Your task to perform on an android device: What is the price of a 12' ladder at Lowes? Image 0: 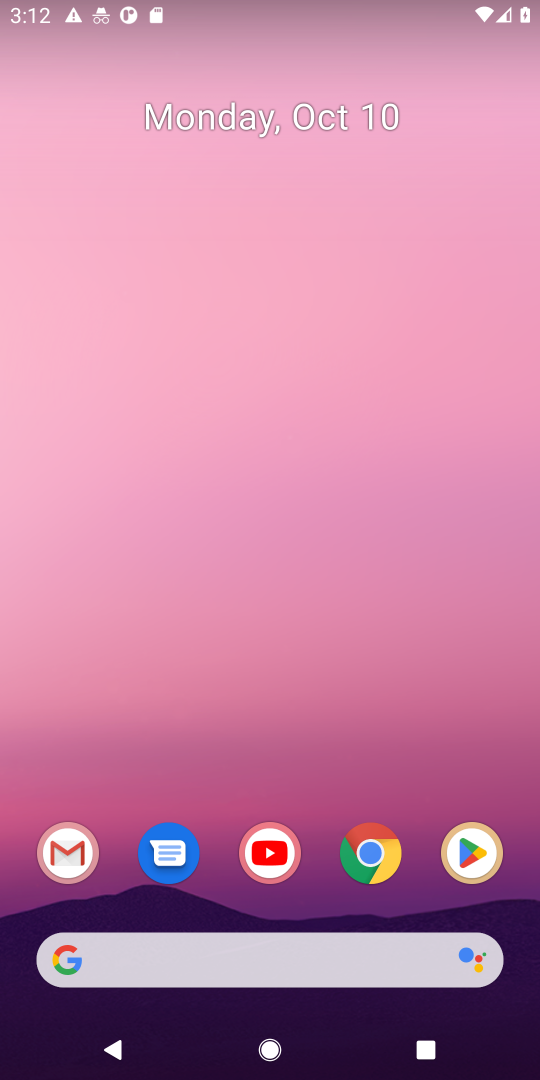
Step 0: click (237, 79)
Your task to perform on an android device: What is the price of a 12' ladder at Lowes? Image 1: 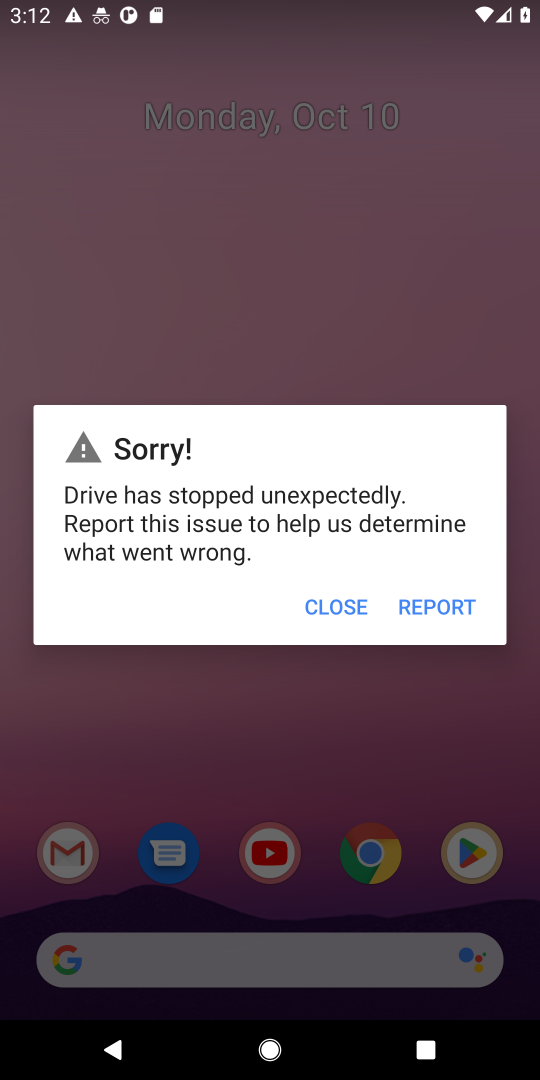
Step 1: click (313, 595)
Your task to perform on an android device: What is the price of a 12' ladder at Lowes? Image 2: 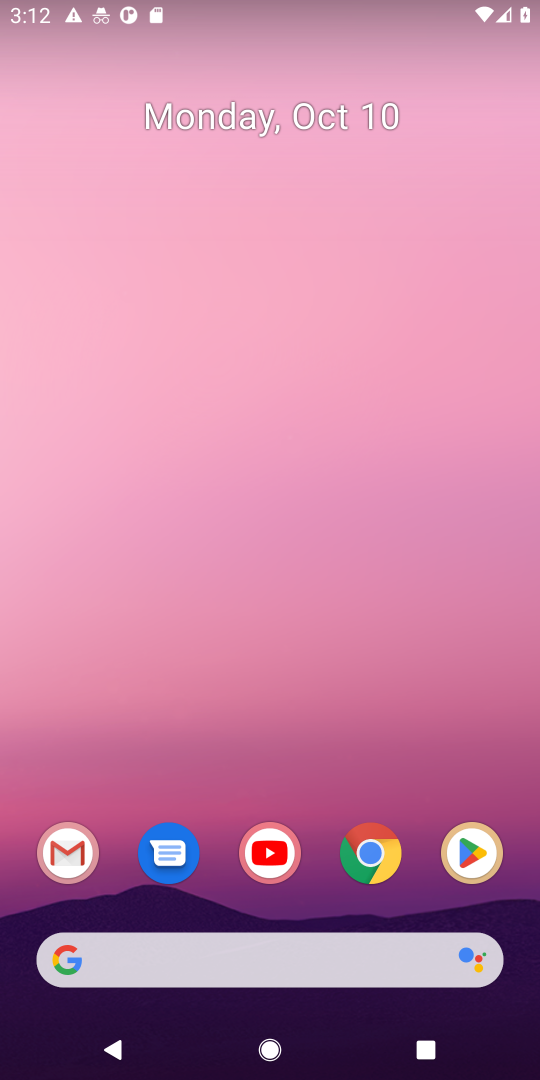
Step 2: click (330, 602)
Your task to perform on an android device: What is the price of a 12' ladder at Lowes? Image 3: 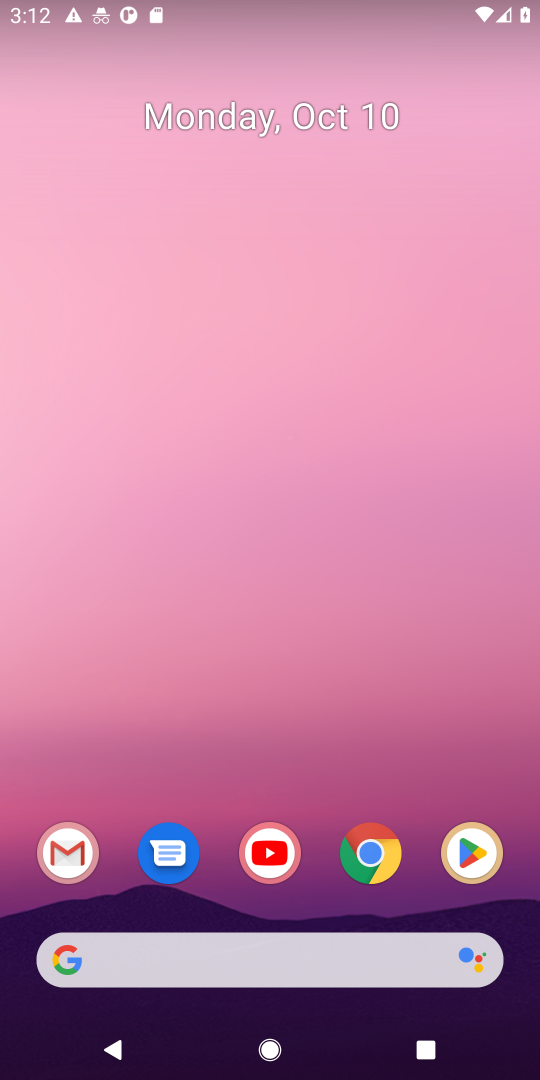
Step 3: click (330, 954)
Your task to perform on an android device: What is the price of a 12' ladder at Lowes? Image 4: 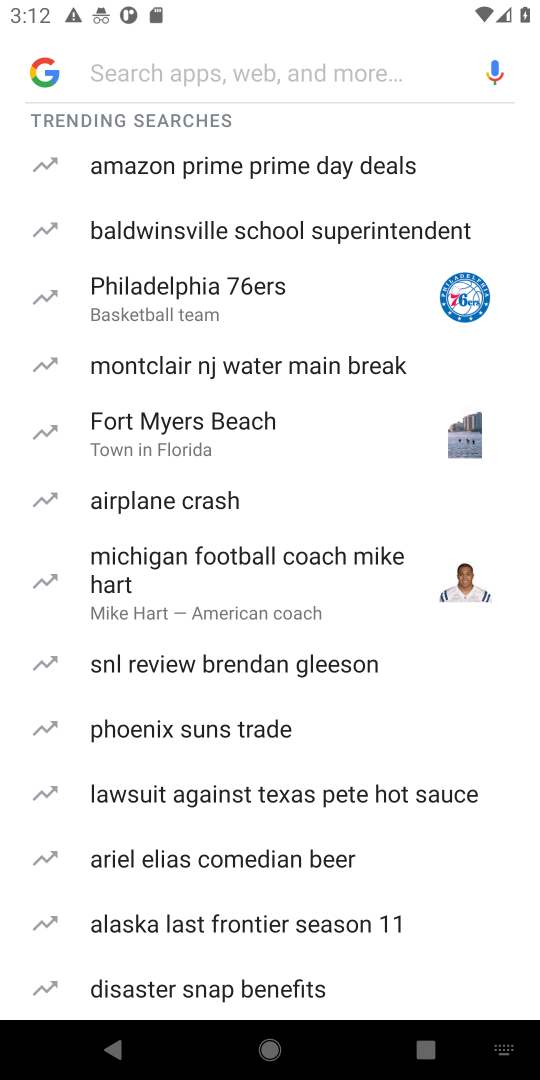
Step 4: type "What is the price of a 12' ladder at Lowes?"
Your task to perform on an android device: What is the price of a 12' ladder at Lowes? Image 5: 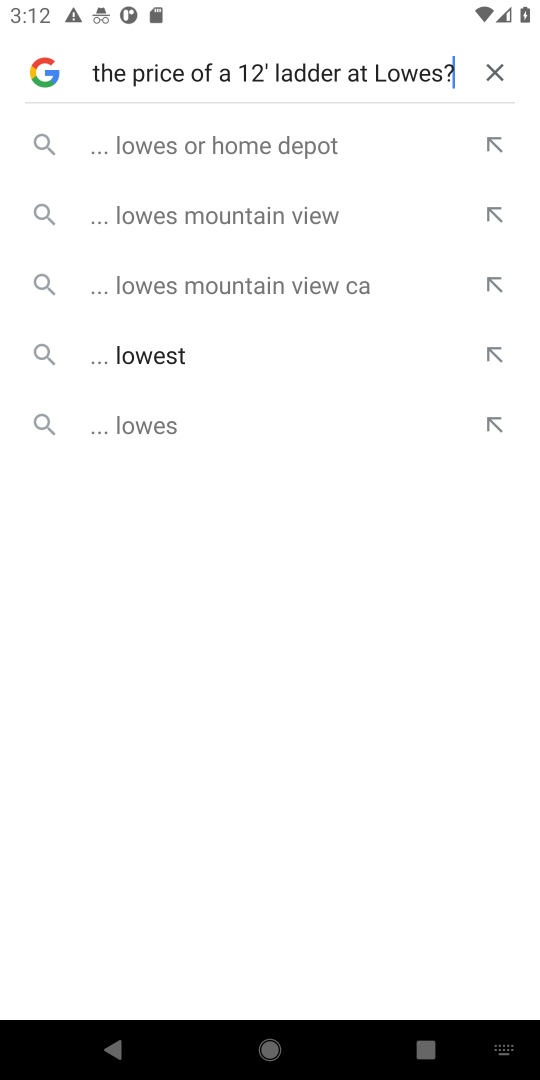
Step 5: press enter
Your task to perform on an android device: What is the price of a 12' ladder at Lowes? Image 6: 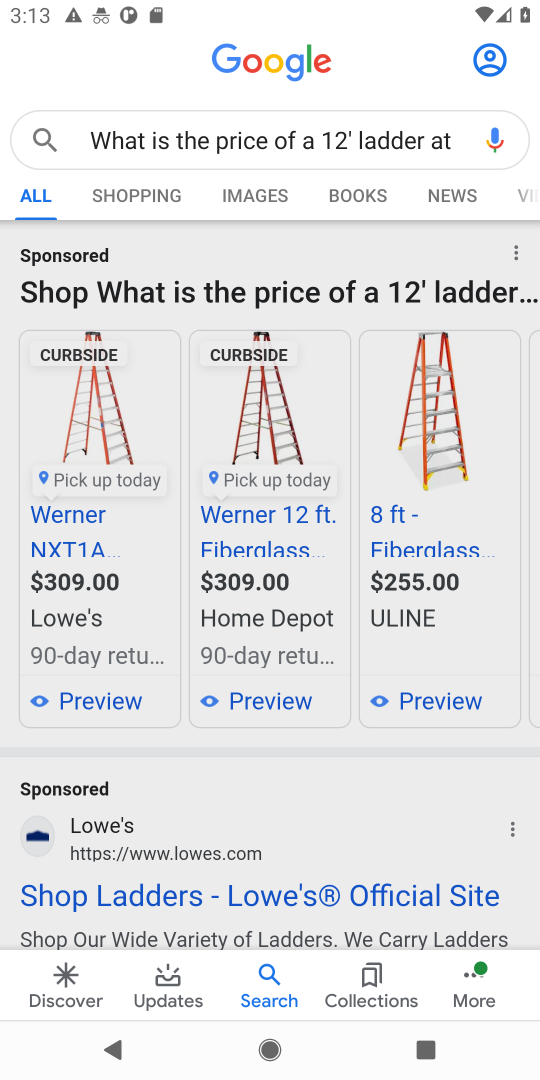
Step 6: click (131, 903)
Your task to perform on an android device: What is the price of a 12' ladder at Lowes? Image 7: 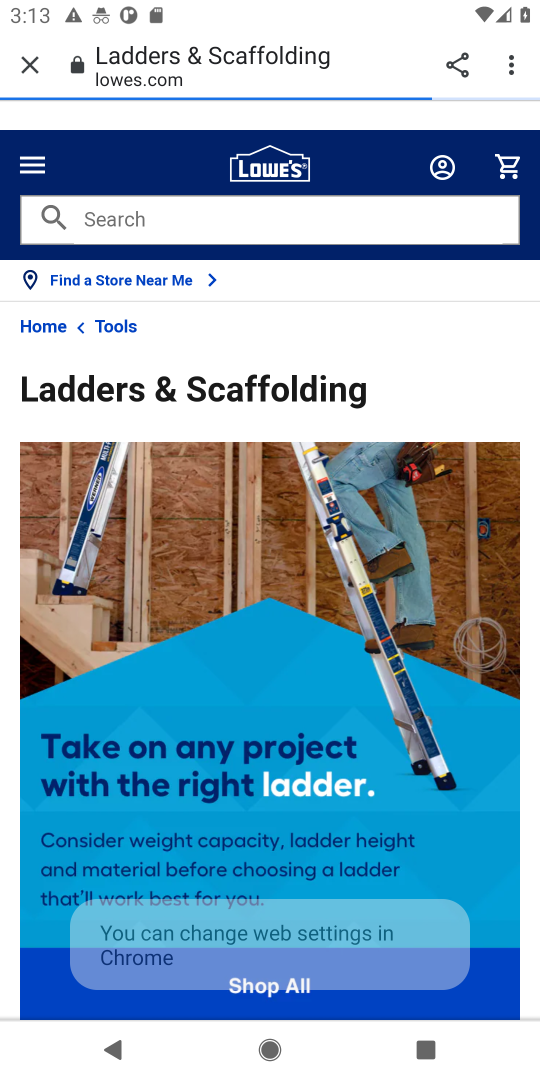
Step 7: drag from (181, 692) to (238, 337)
Your task to perform on an android device: What is the price of a 12' ladder at Lowes? Image 8: 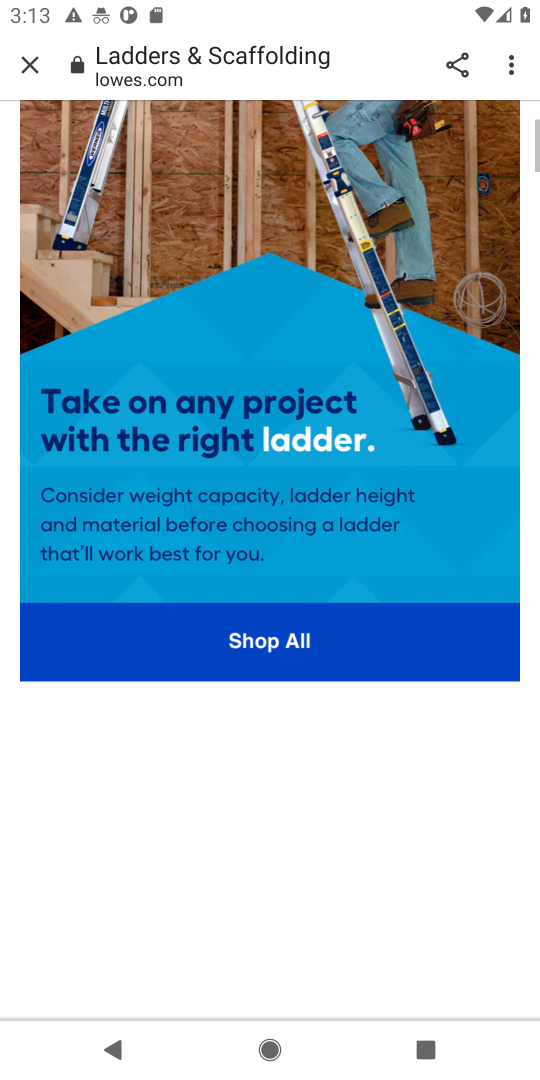
Step 8: drag from (278, 809) to (332, 256)
Your task to perform on an android device: What is the price of a 12' ladder at Lowes? Image 9: 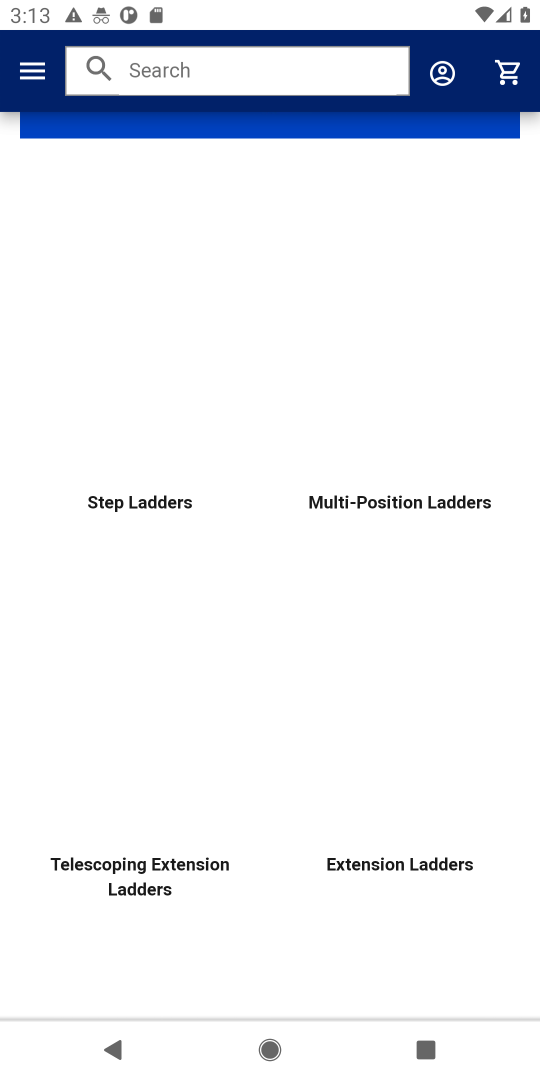
Step 9: drag from (379, 798) to (409, 254)
Your task to perform on an android device: What is the price of a 12' ladder at Lowes? Image 10: 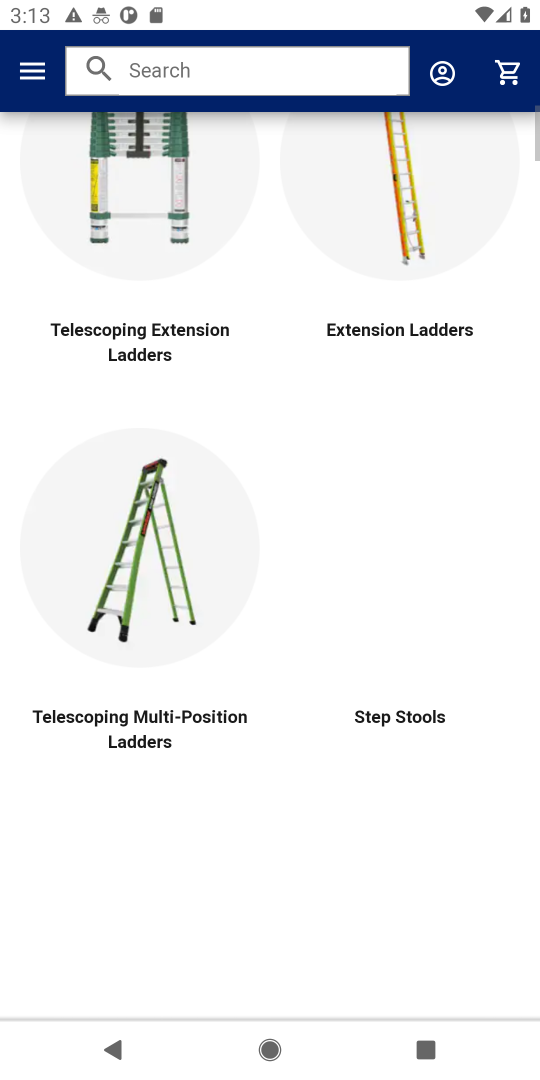
Step 10: drag from (360, 666) to (367, 274)
Your task to perform on an android device: What is the price of a 12' ladder at Lowes? Image 11: 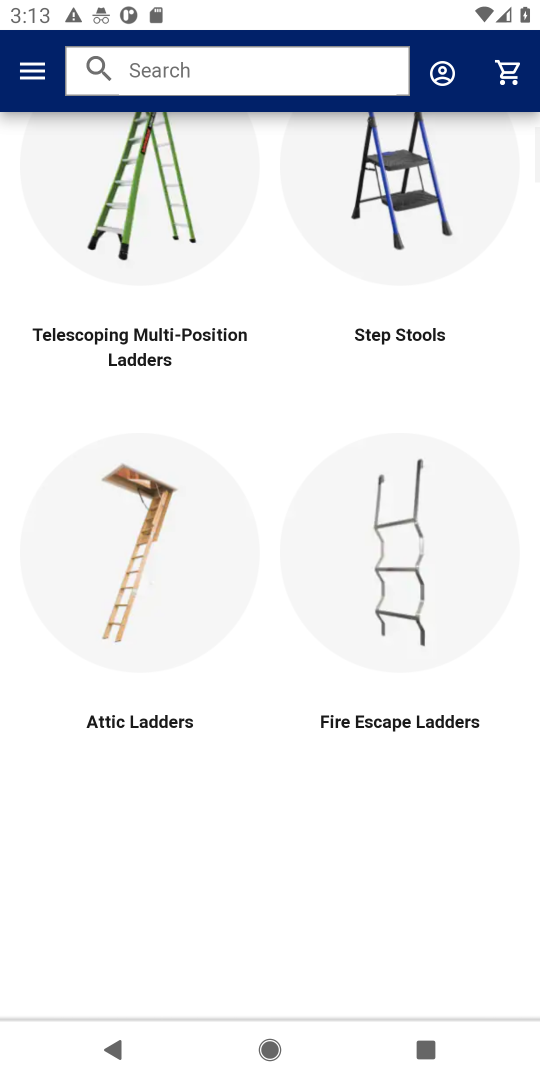
Step 11: drag from (352, 355) to (365, 147)
Your task to perform on an android device: What is the price of a 12' ladder at Lowes? Image 12: 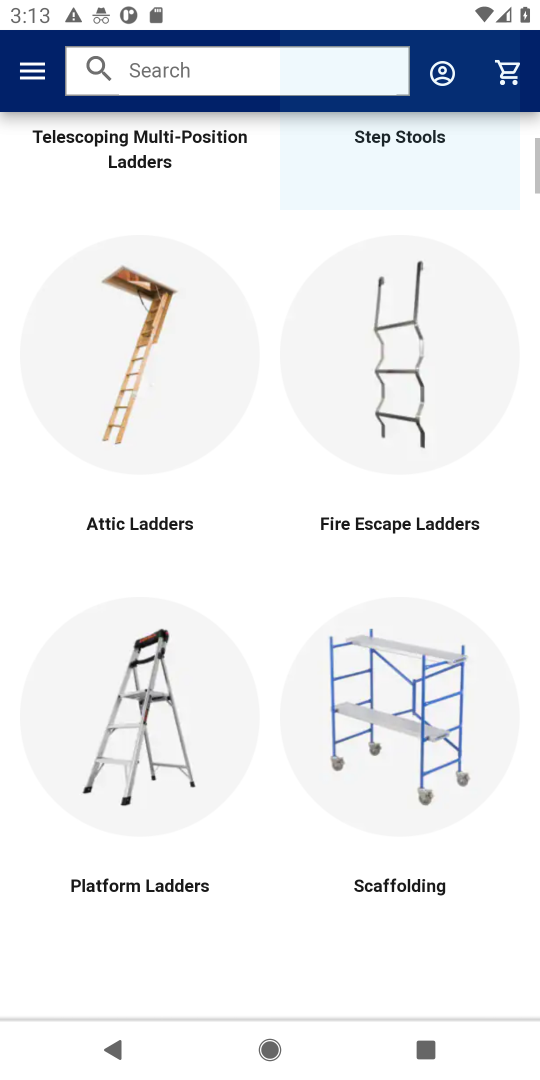
Step 12: click (397, 318)
Your task to perform on an android device: What is the price of a 12' ladder at Lowes? Image 13: 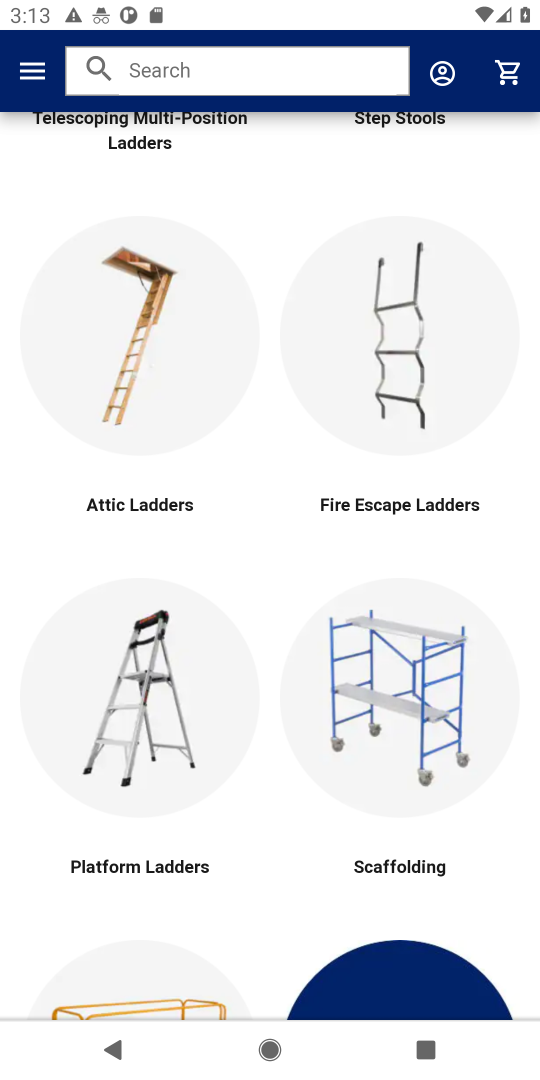
Step 13: drag from (373, 720) to (349, 334)
Your task to perform on an android device: What is the price of a 12' ladder at Lowes? Image 14: 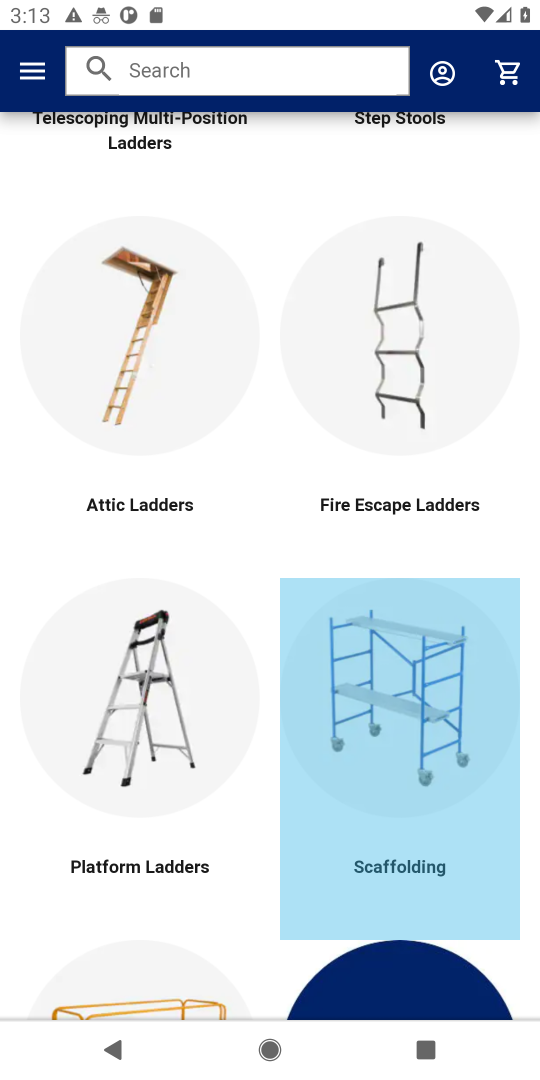
Step 14: drag from (300, 606) to (306, 305)
Your task to perform on an android device: What is the price of a 12' ladder at Lowes? Image 15: 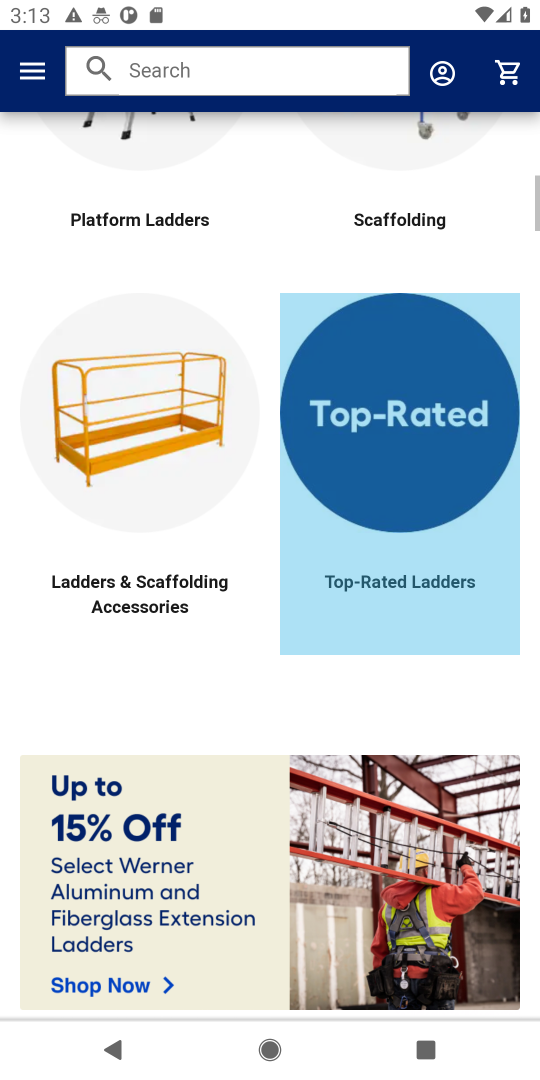
Step 15: drag from (305, 374) to (320, 282)
Your task to perform on an android device: What is the price of a 12' ladder at Lowes? Image 16: 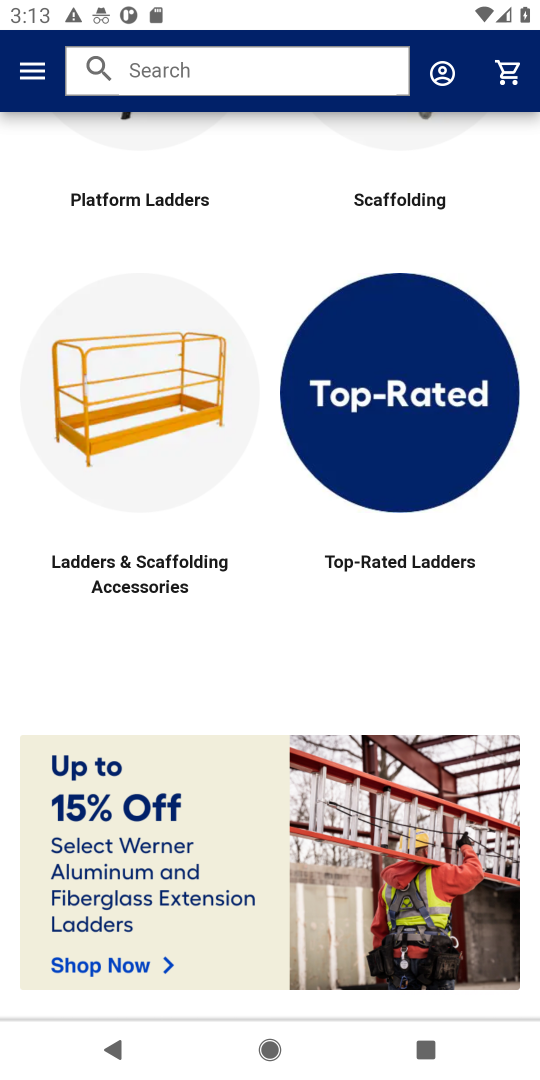
Step 16: drag from (348, 467) to (386, 212)
Your task to perform on an android device: What is the price of a 12' ladder at Lowes? Image 17: 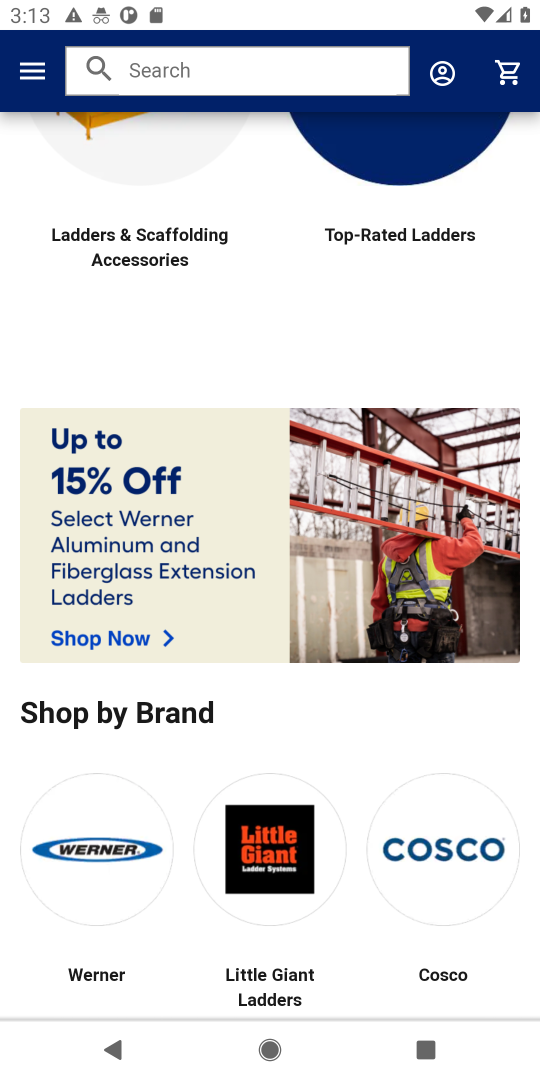
Step 17: drag from (109, 856) to (282, 177)
Your task to perform on an android device: What is the price of a 12' ladder at Lowes? Image 18: 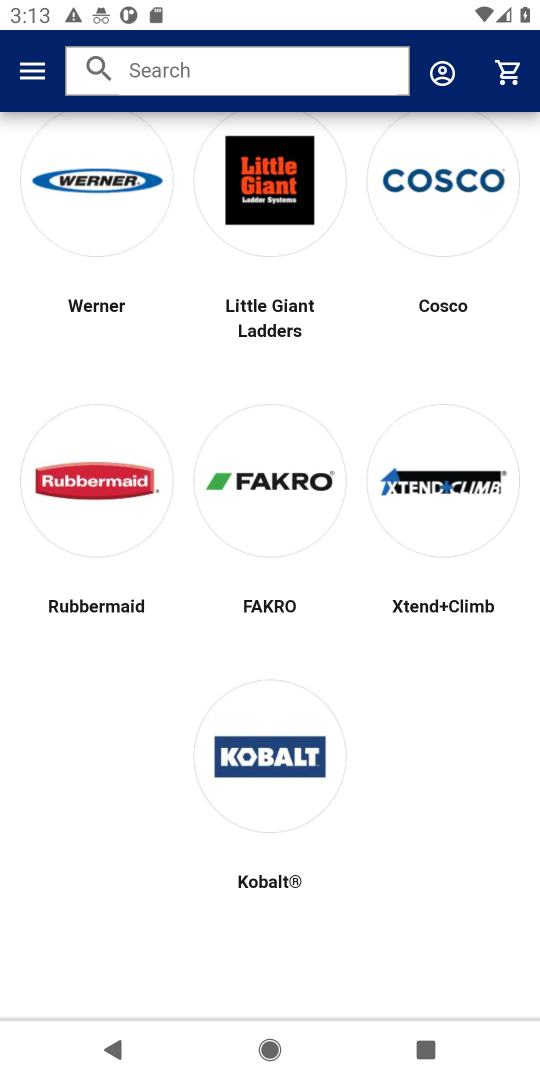
Step 18: drag from (290, 632) to (359, 202)
Your task to perform on an android device: What is the price of a 12' ladder at Lowes? Image 19: 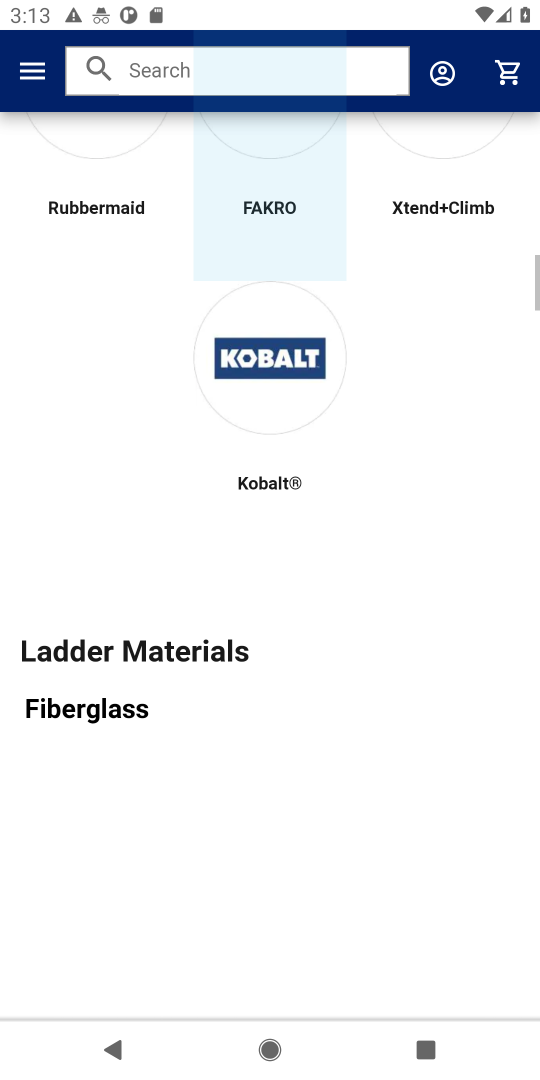
Step 19: drag from (294, 617) to (323, 263)
Your task to perform on an android device: What is the price of a 12' ladder at Lowes? Image 20: 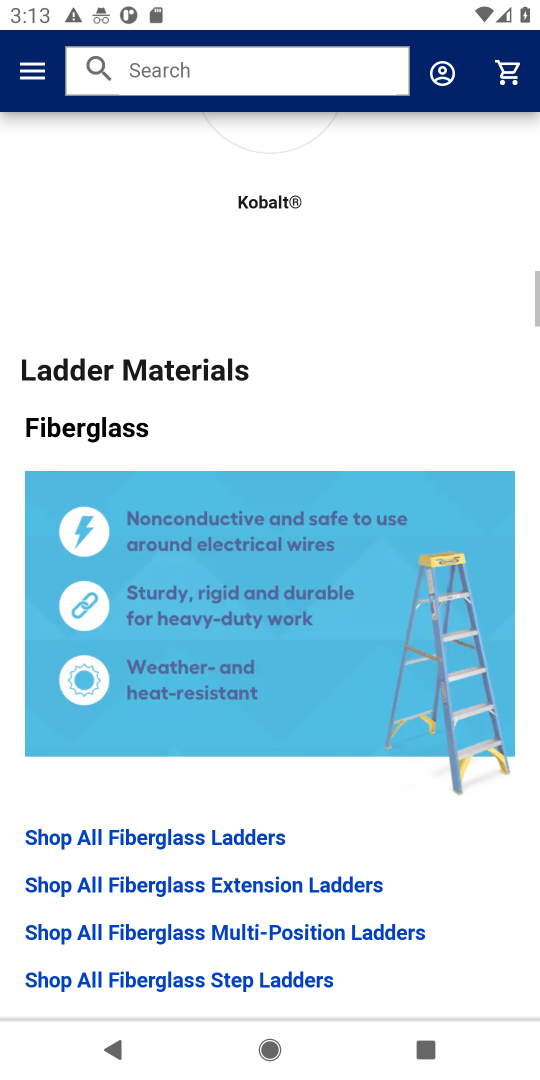
Step 20: drag from (252, 640) to (272, 402)
Your task to perform on an android device: What is the price of a 12' ladder at Lowes? Image 21: 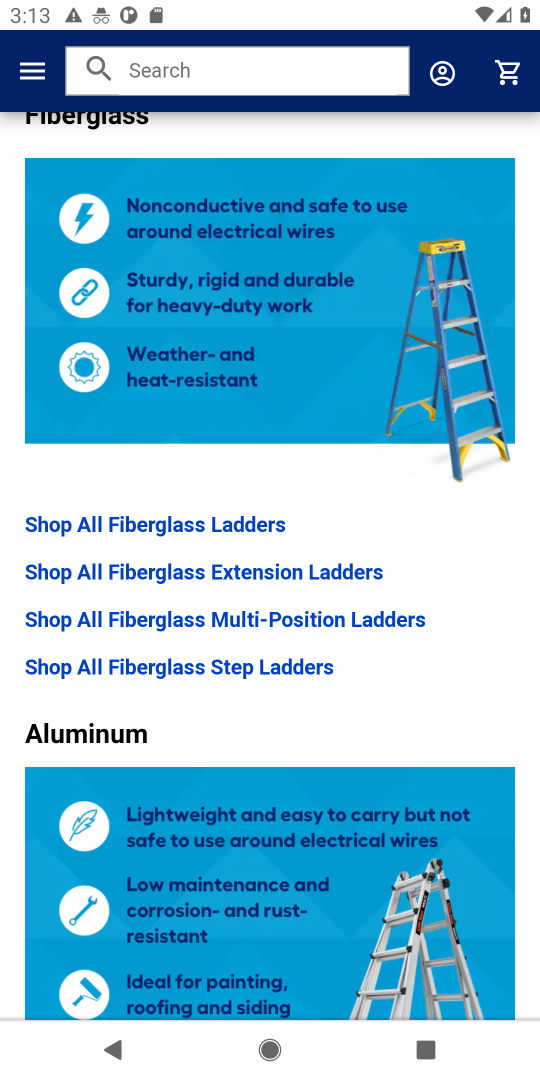
Step 21: drag from (233, 671) to (244, 258)
Your task to perform on an android device: What is the price of a 12' ladder at Lowes? Image 22: 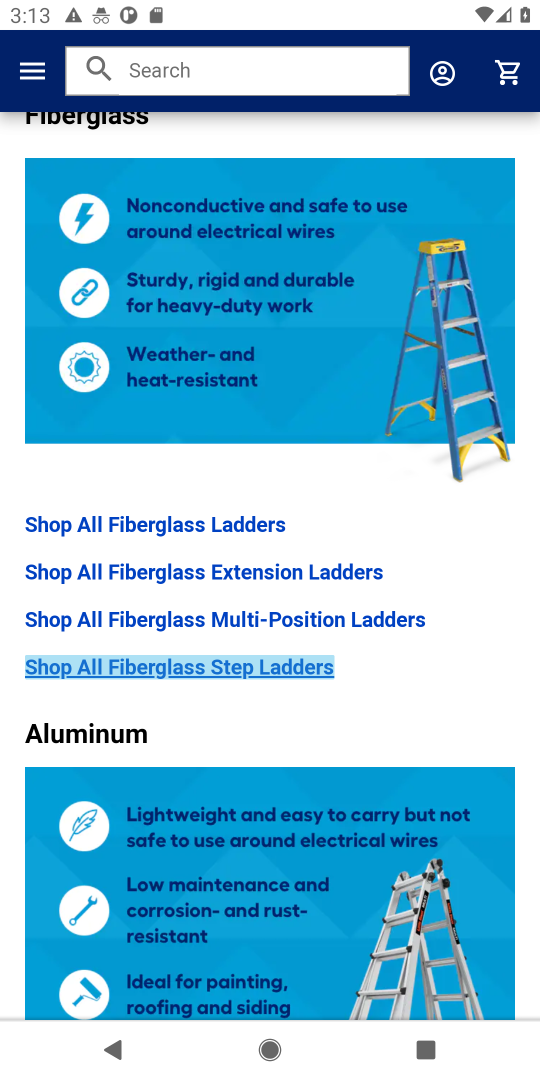
Step 22: drag from (198, 679) to (199, 360)
Your task to perform on an android device: What is the price of a 12' ladder at Lowes? Image 23: 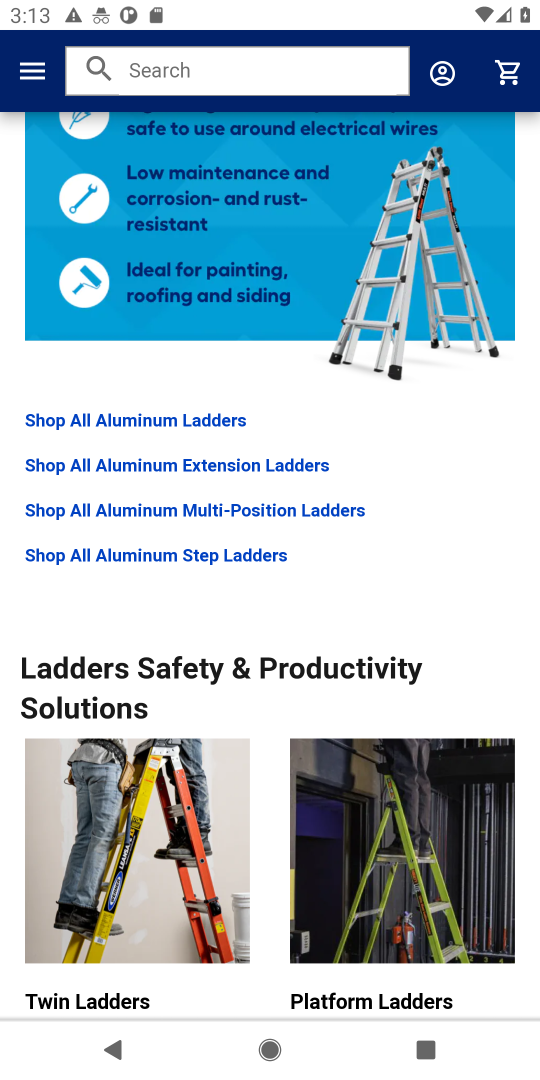
Step 23: drag from (288, 605) to (260, 253)
Your task to perform on an android device: What is the price of a 12' ladder at Lowes? Image 24: 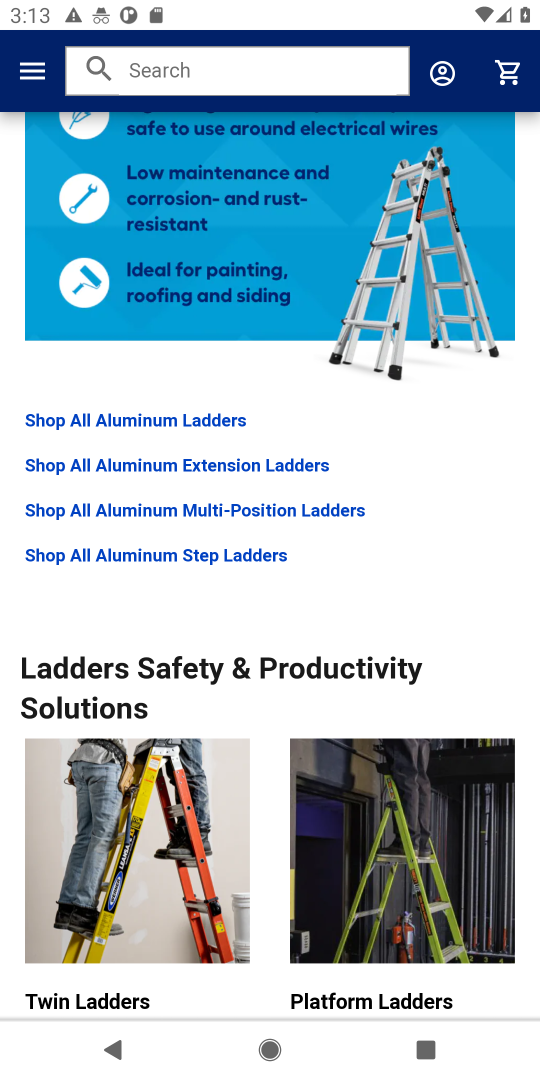
Step 24: drag from (283, 584) to (271, 242)
Your task to perform on an android device: What is the price of a 12' ladder at Lowes? Image 25: 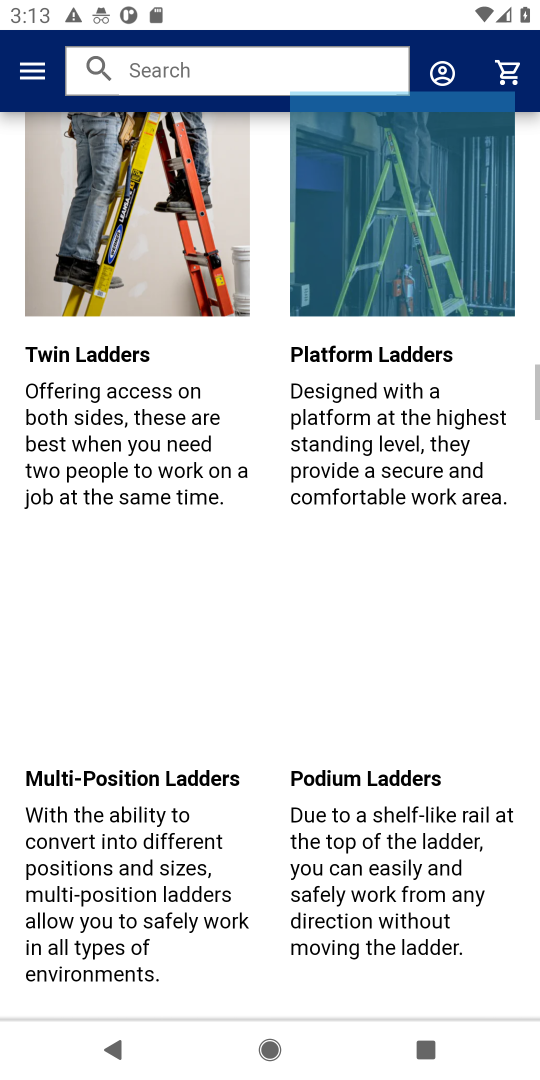
Step 25: drag from (329, 416) to (363, 208)
Your task to perform on an android device: What is the price of a 12' ladder at Lowes? Image 26: 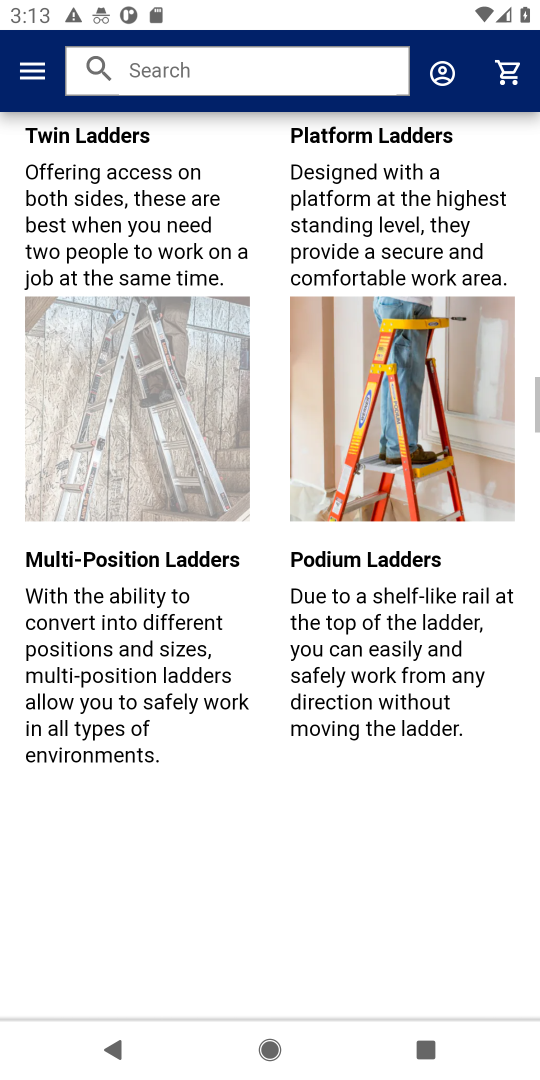
Step 26: drag from (369, 613) to (349, 192)
Your task to perform on an android device: What is the price of a 12' ladder at Lowes? Image 27: 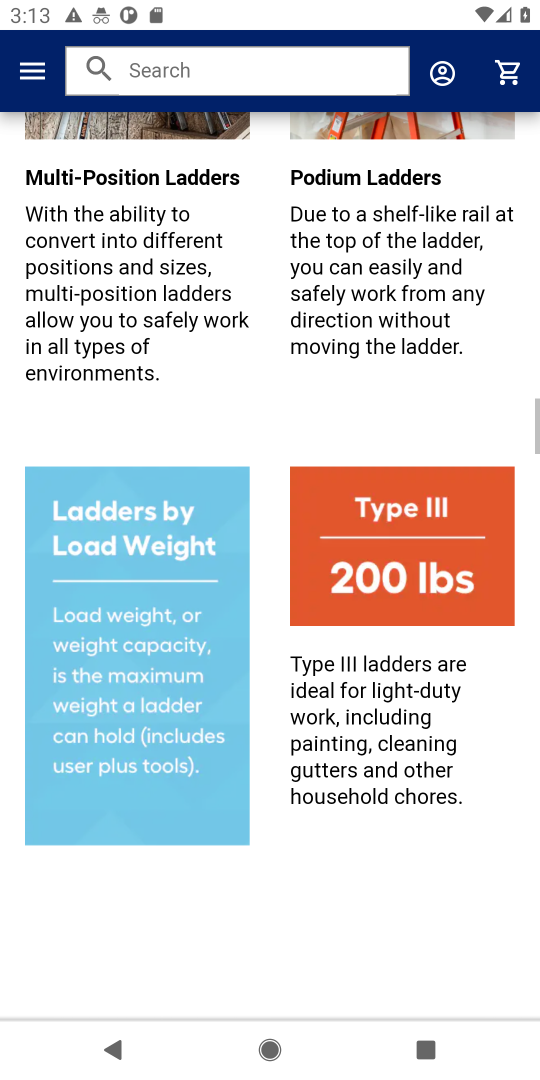
Step 27: drag from (304, 626) to (318, 226)
Your task to perform on an android device: What is the price of a 12' ladder at Lowes? Image 28: 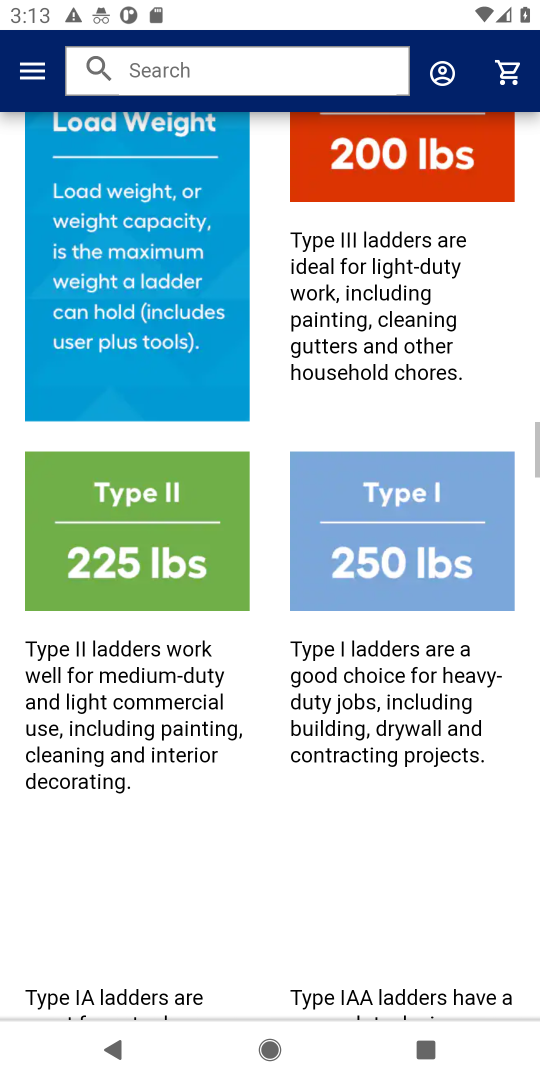
Step 28: drag from (326, 506) to (349, 252)
Your task to perform on an android device: What is the price of a 12' ladder at Lowes? Image 29: 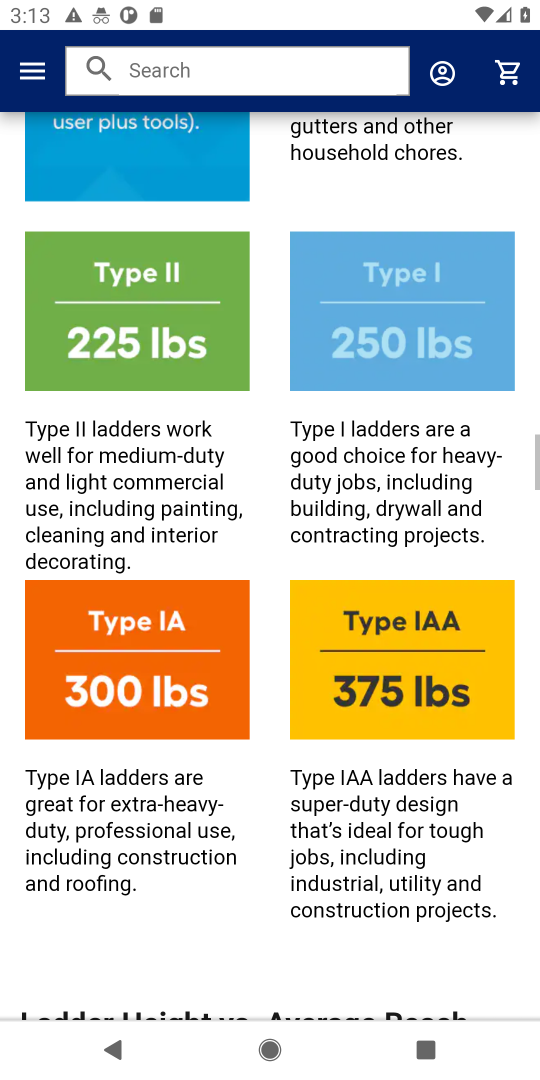
Step 29: drag from (380, 637) to (473, 157)
Your task to perform on an android device: What is the price of a 12' ladder at Lowes? Image 30: 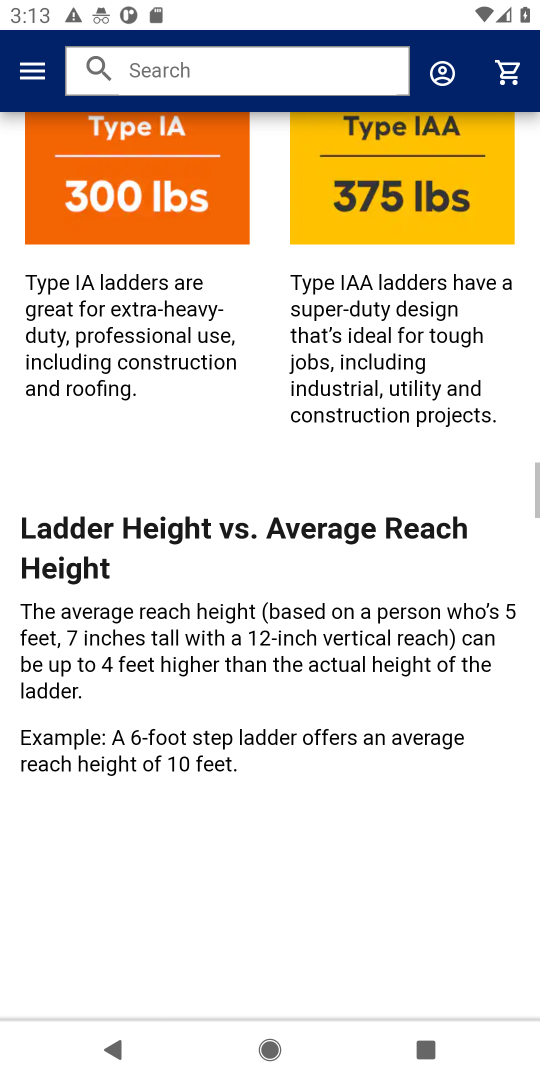
Step 30: drag from (308, 738) to (305, 145)
Your task to perform on an android device: What is the price of a 12' ladder at Lowes? Image 31: 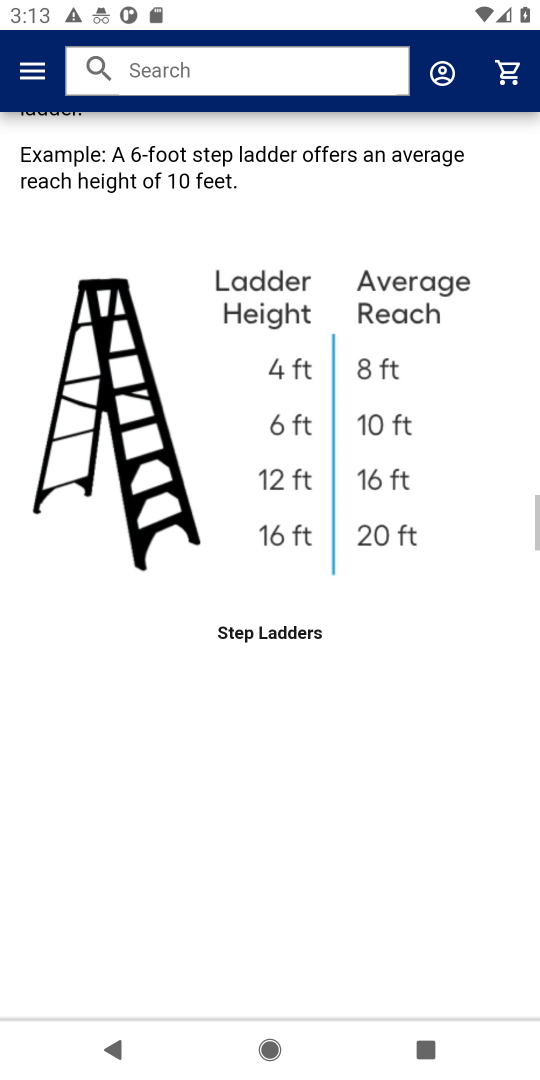
Step 31: drag from (313, 879) to (317, 170)
Your task to perform on an android device: What is the price of a 12' ladder at Lowes? Image 32: 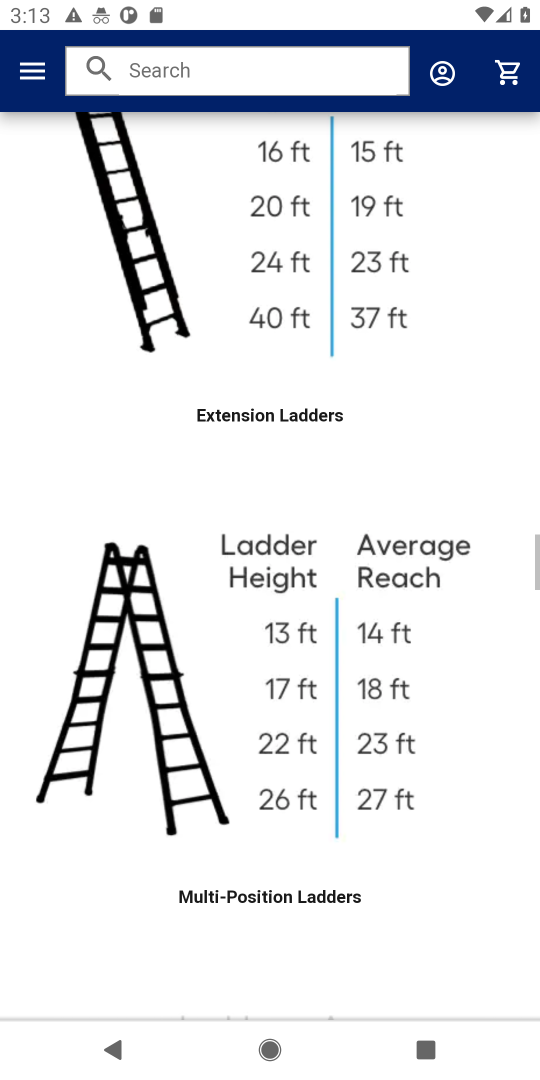
Step 32: drag from (287, 715) to (285, 207)
Your task to perform on an android device: What is the price of a 12' ladder at Lowes? Image 33: 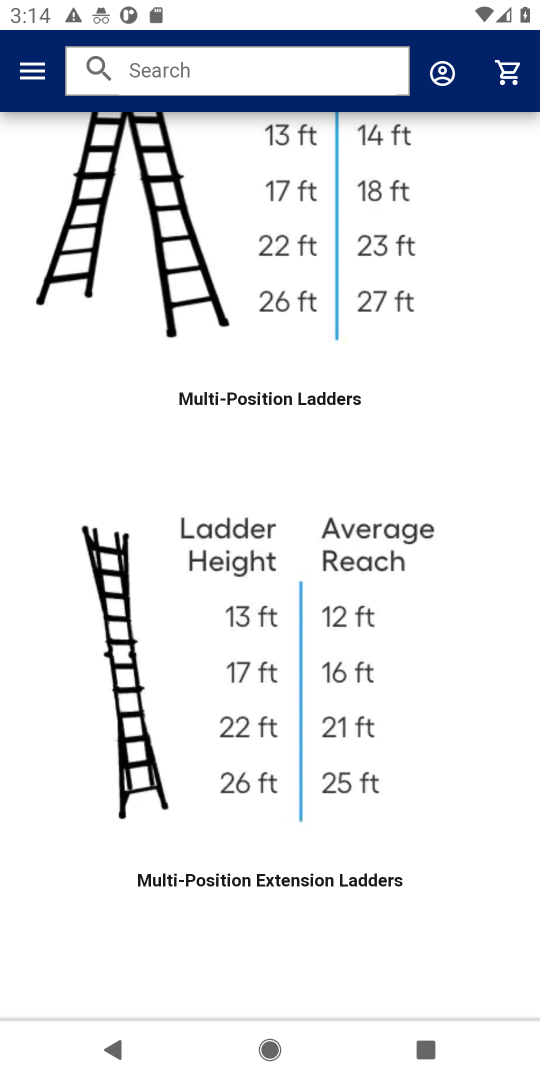
Step 33: drag from (310, 696) to (314, 149)
Your task to perform on an android device: What is the price of a 12' ladder at Lowes? Image 34: 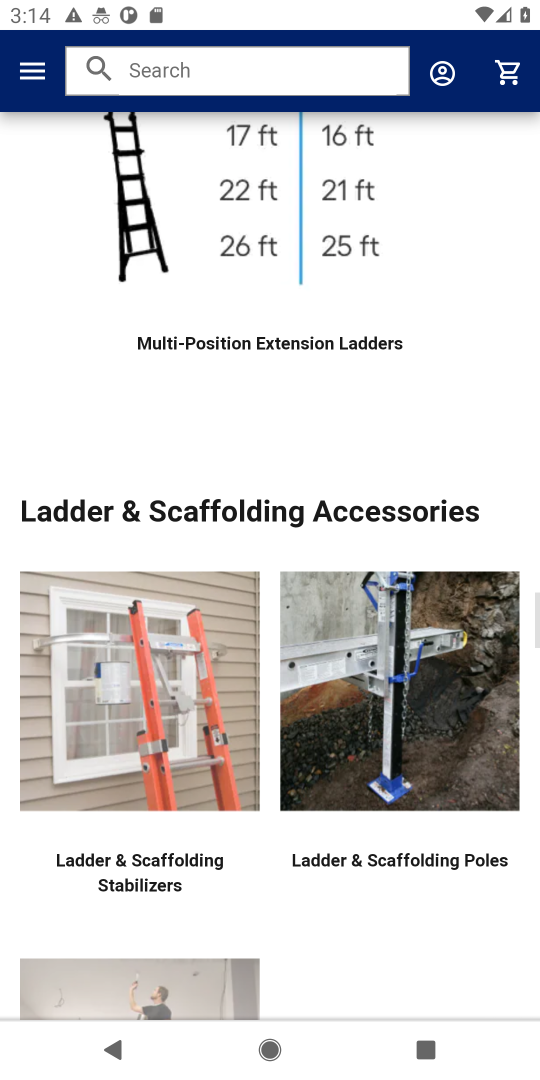
Step 34: drag from (240, 928) to (251, 202)
Your task to perform on an android device: What is the price of a 12' ladder at Lowes? Image 35: 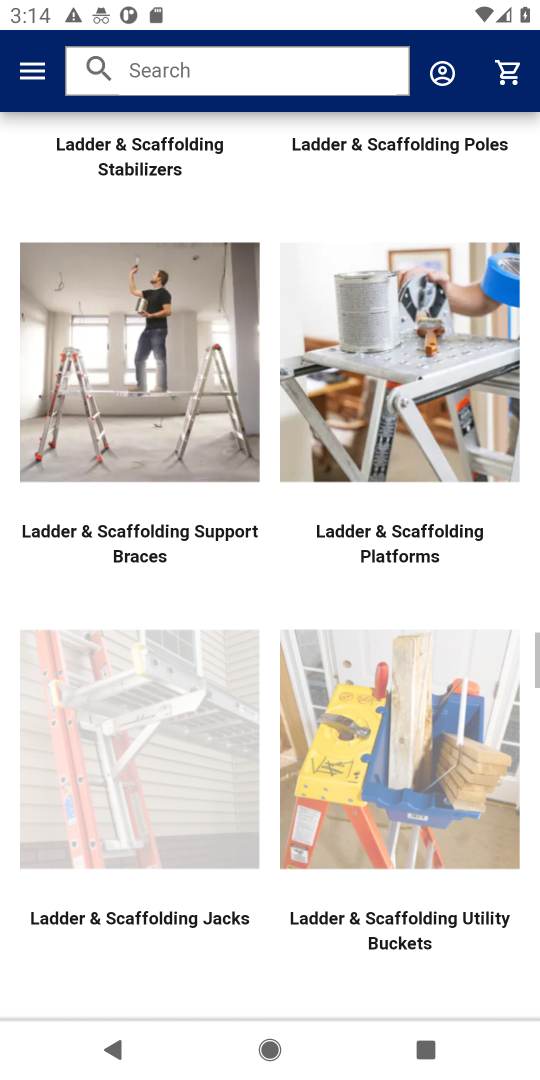
Step 35: drag from (242, 824) to (292, 177)
Your task to perform on an android device: What is the price of a 12' ladder at Lowes? Image 36: 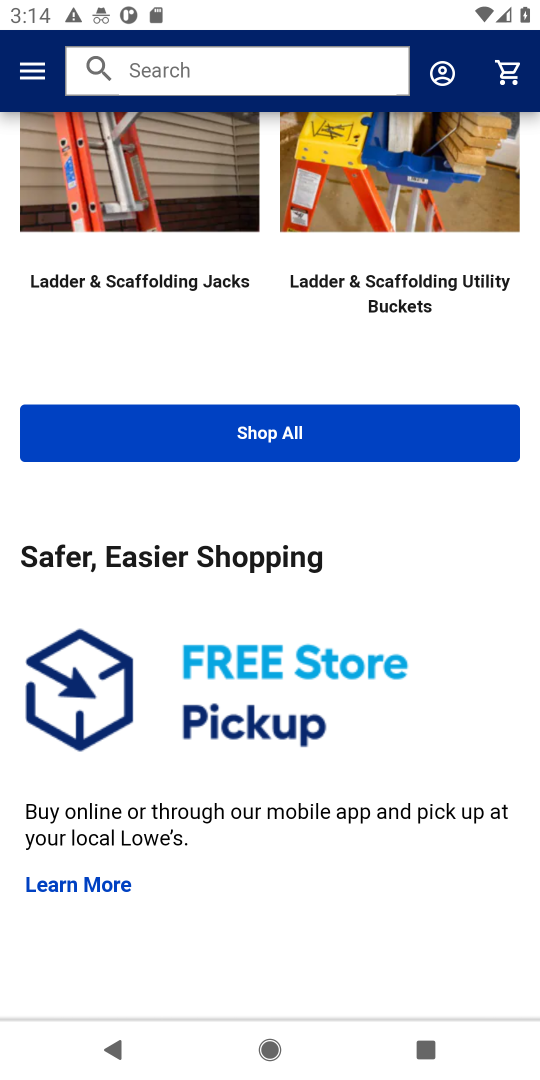
Step 36: drag from (258, 626) to (332, 171)
Your task to perform on an android device: What is the price of a 12' ladder at Lowes? Image 37: 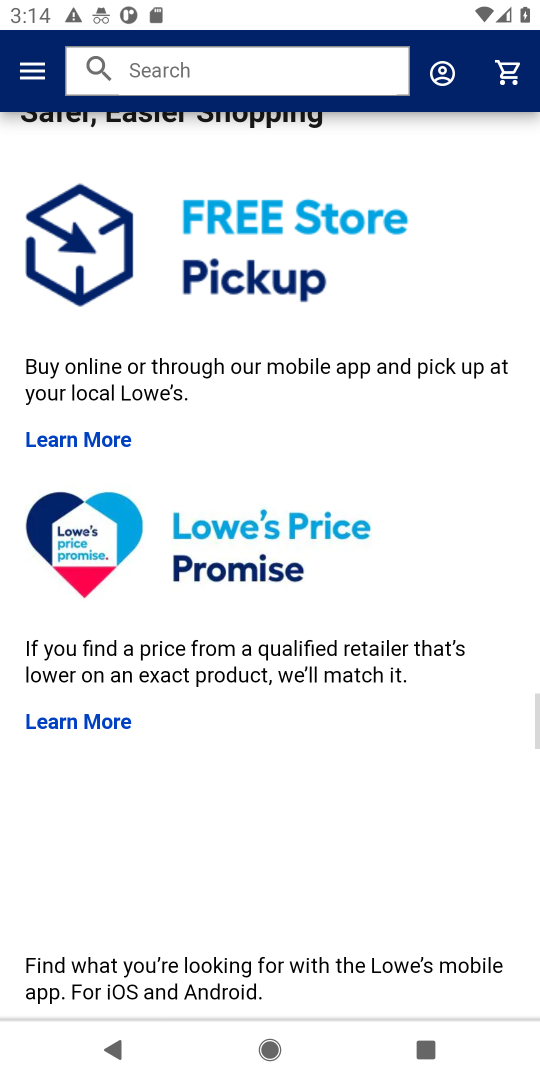
Step 37: drag from (260, 848) to (299, 287)
Your task to perform on an android device: What is the price of a 12' ladder at Lowes? Image 38: 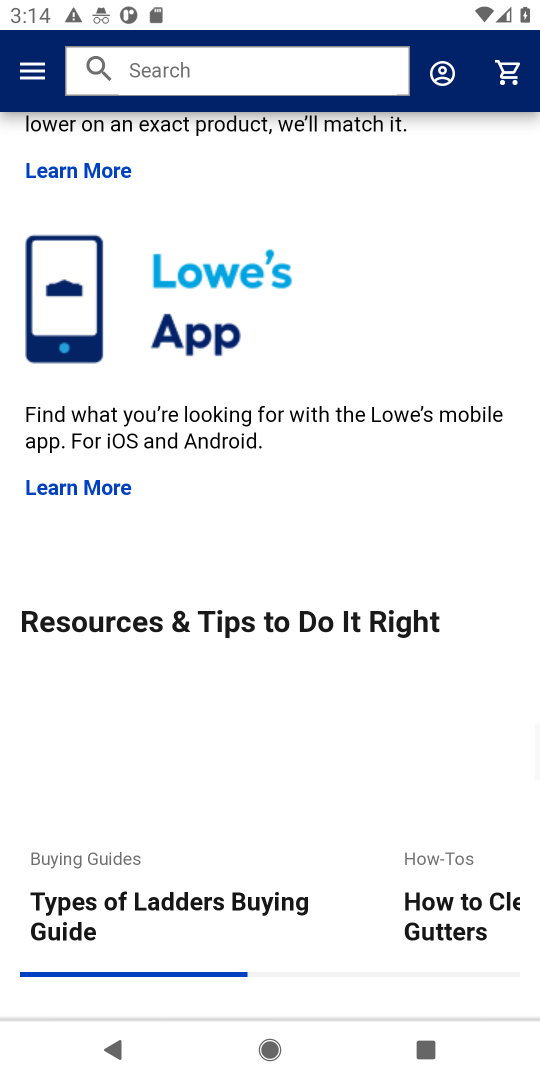
Step 38: drag from (251, 861) to (272, 386)
Your task to perform on an android device: What is the price of a 12' ladder at Lowes? Image 39: 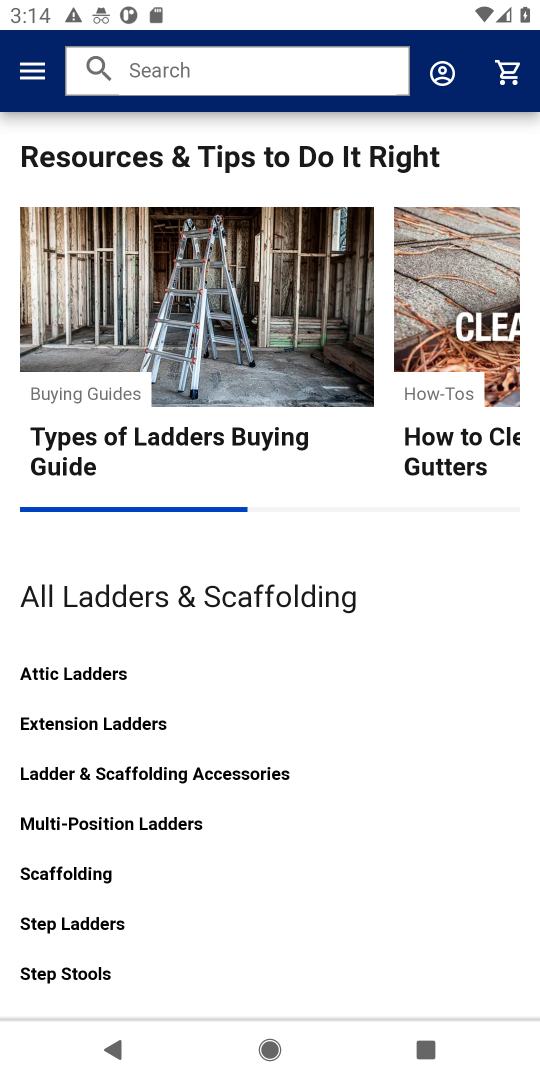
Step 39: drag from (284, 720) to (330, 375)
Your task to perform on an android device: What is the price of a 12' ladder at Lowes? Image 40: 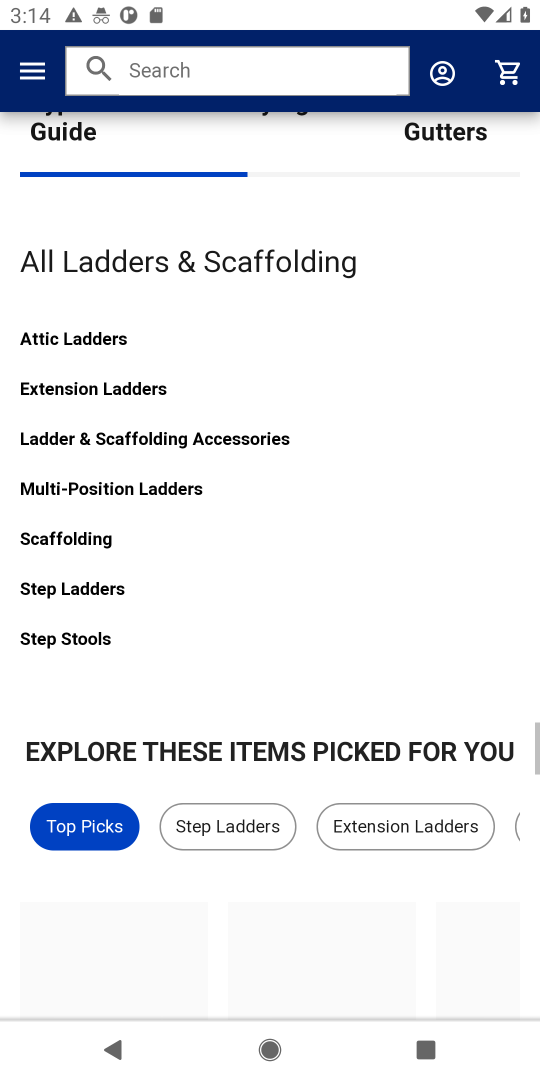
Step 40: drag from (342, 807) to (377, 309)
Your task to perform on an android device: What is the price of a 12' ladder at Lowes? Image 41: 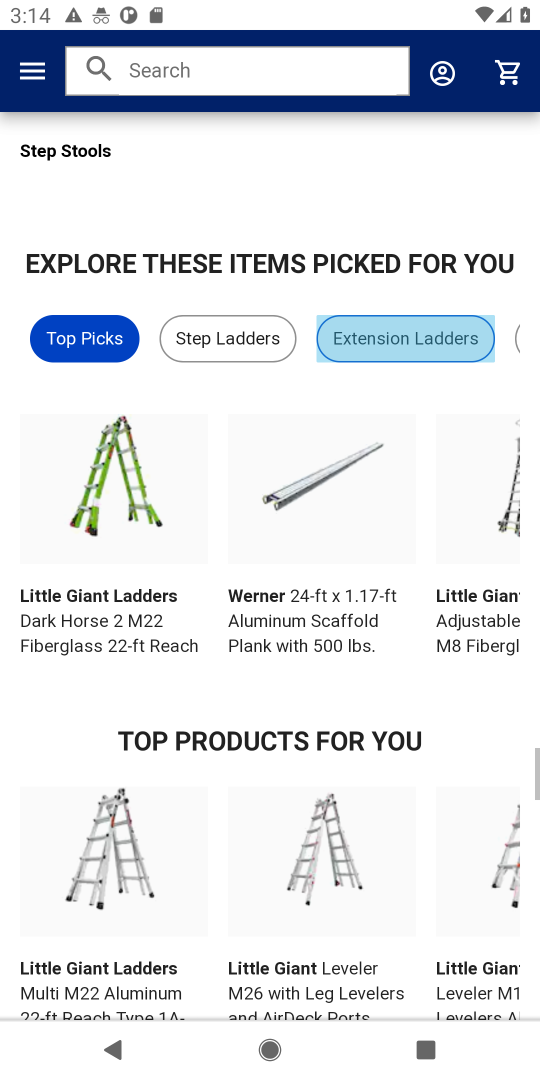
Step 41: drag from (396, 525) to (420, 268)
Your task to perform on an android device: What is the price of a 12' ladder at Lowes? Image 42: 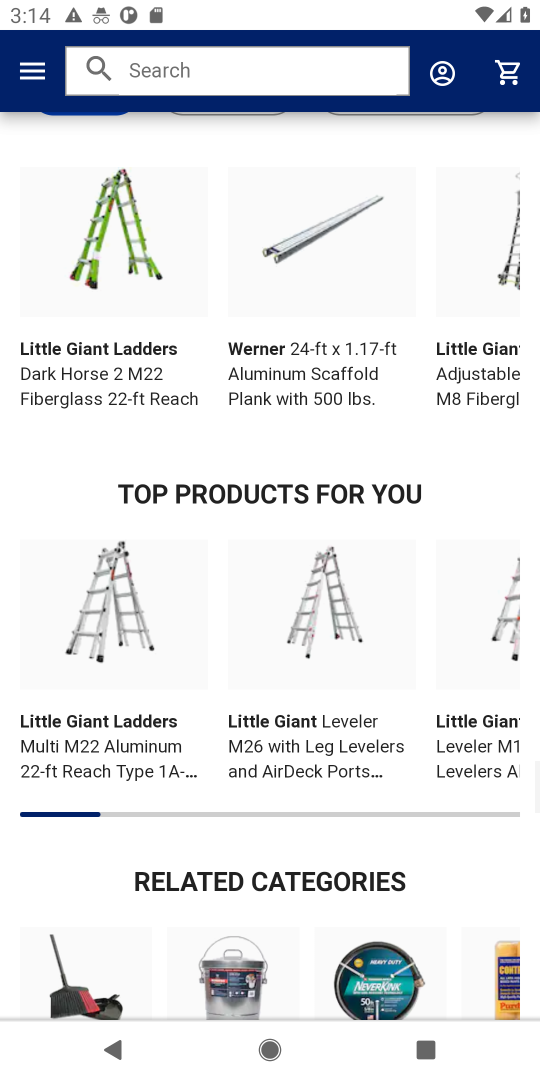
Step 42: drag from (332, 513) to (356, 335)
Your task to perform on an android device: What is the price of a 12' ladder at Lowes? Image 43: 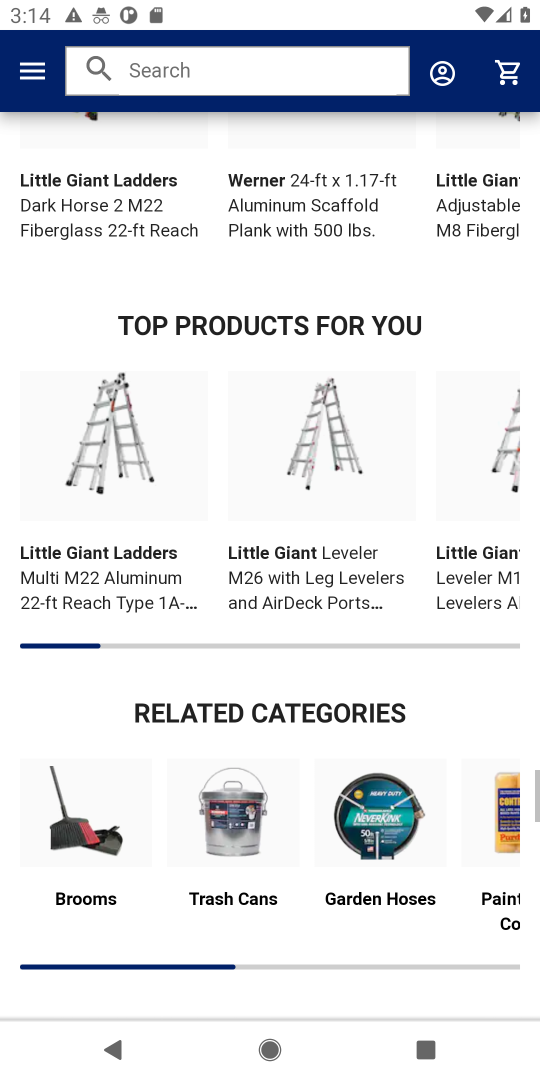
Step 43: click (146, 313)
Your task to perform on an android device: What is the price of a 12' ladder at Lowes? Image 44: 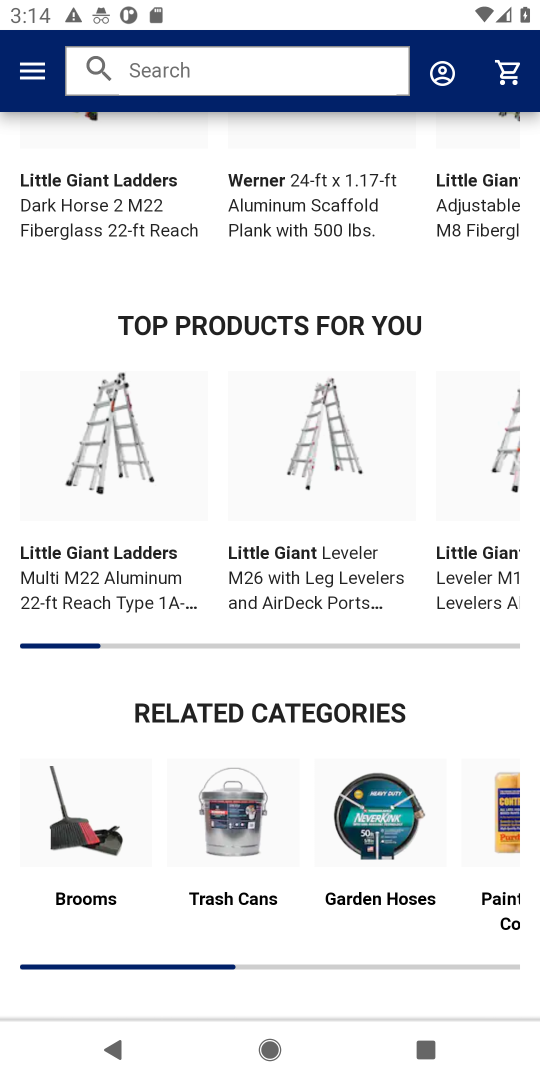
Step 44: drag from (294, 416) to (318, 166)
Your task to perform on an android device: What is the price of a 12' ladder at Lowes? Image 45: 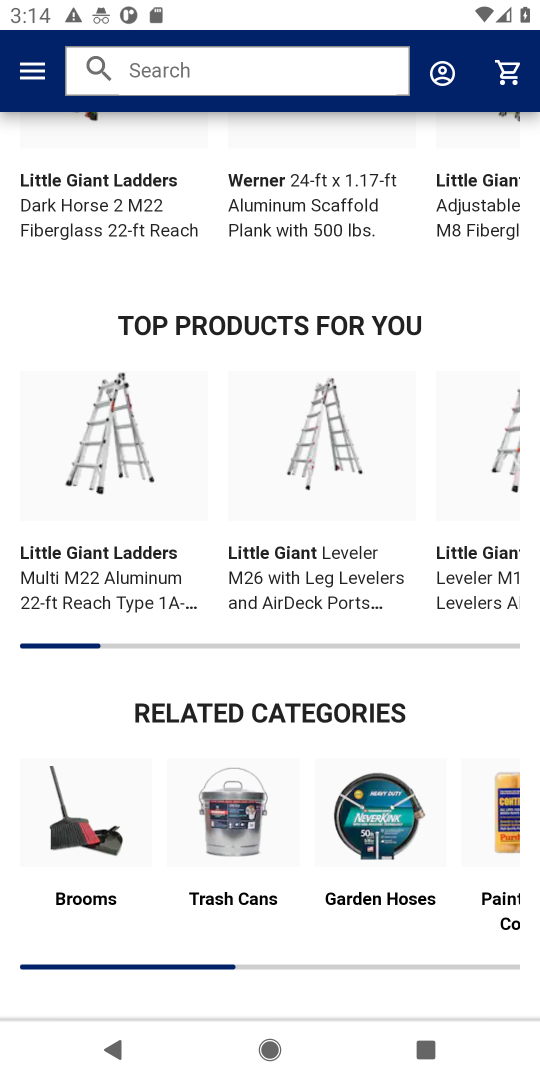
Step 45: click (301, 286)
Your task to perform on an android device: What is the price of a 12' ladder at Lowes? Image 46: 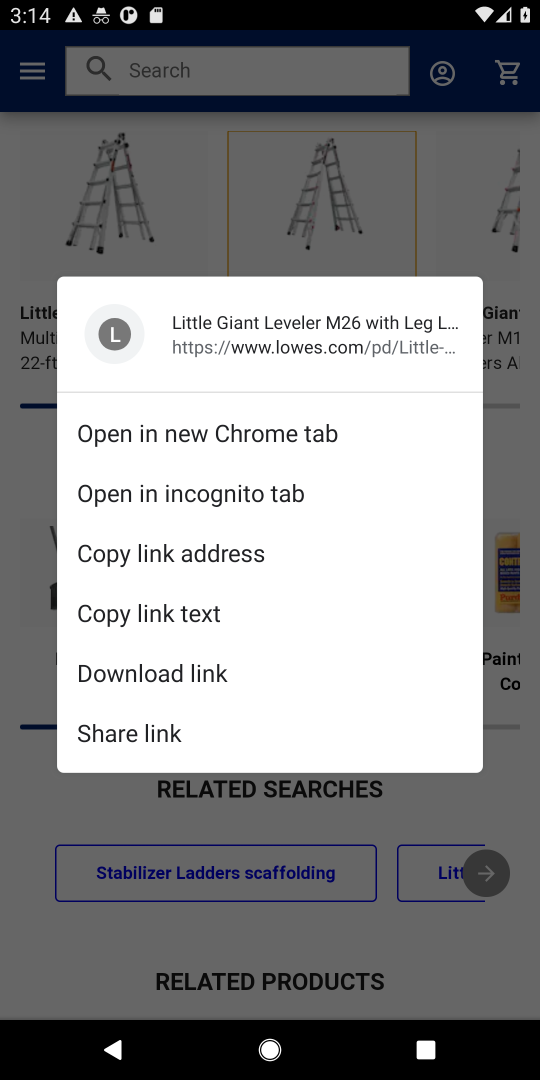
Step 46: click (296, 211)
Your task to perform on an android device: What is the price of a 12' ladder at Lowes? Image 47: 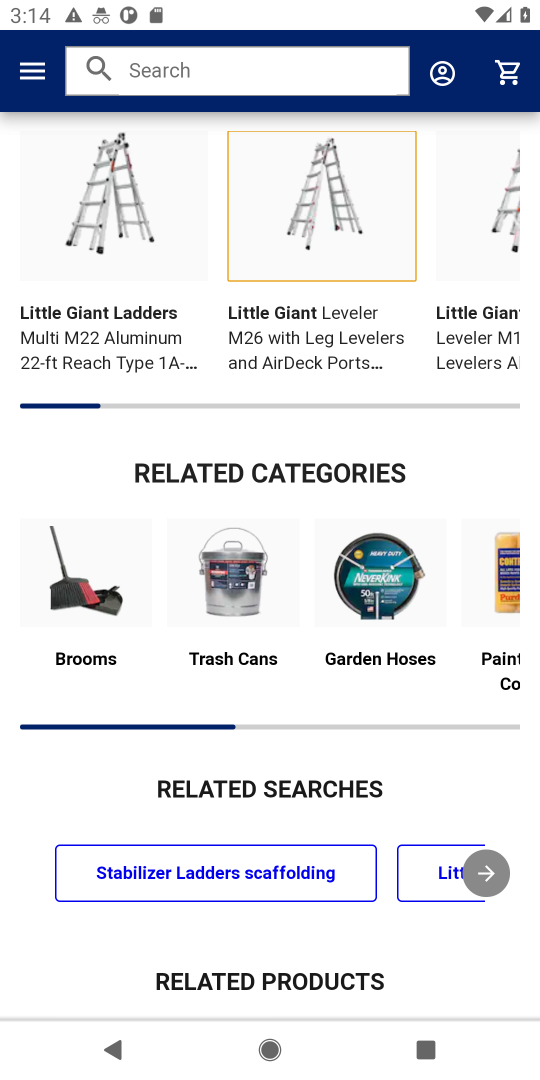
Step 47: click (309, 328)
Your task to perform on an android device: What is the price of a 12' ladder at Lowes? Image 48: 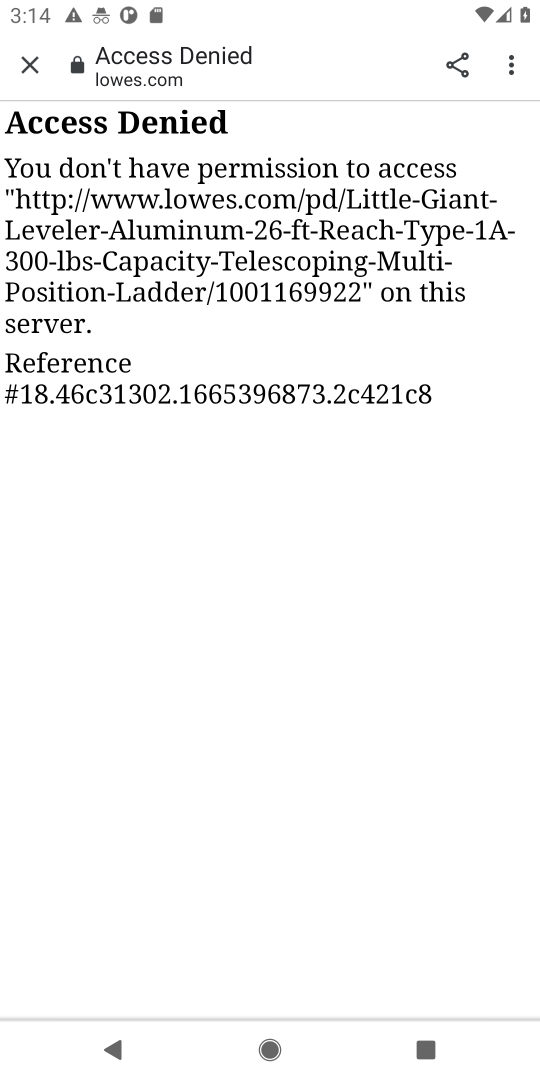
Step 48: task complete